Your task to perform on an android device: add a contact Image 0: 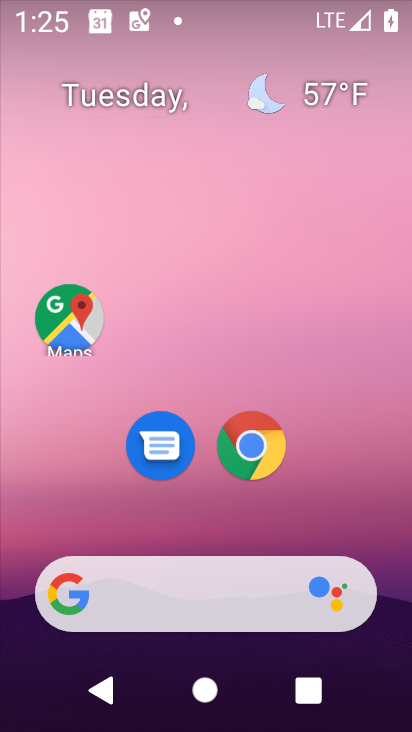
Step 0: drag from (360, 521) to (376, 221)
Your task to perform on an android device: add a contact Image 1: 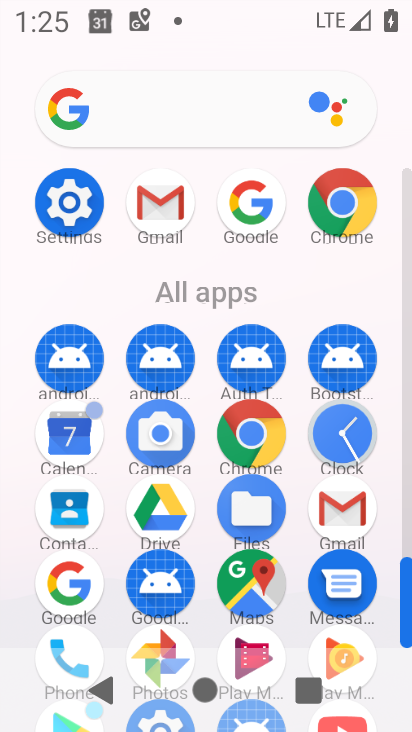
Step 1: click (74, 515)
Your task to perform on an android device: add a contact Image 2: 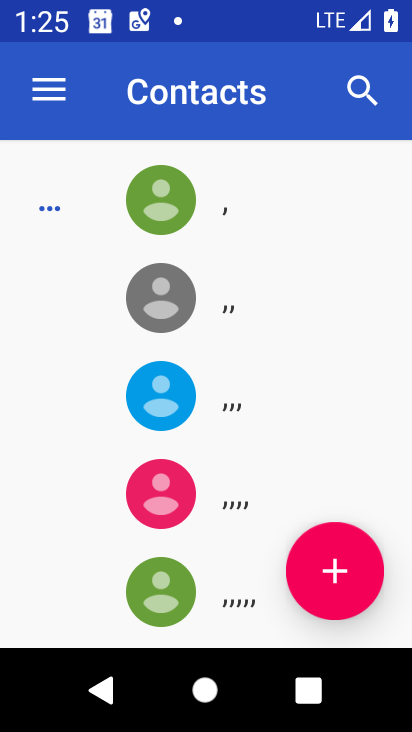
Step 2: click (328, 564)
Your task to perform on an android device: add a contact Image 3: 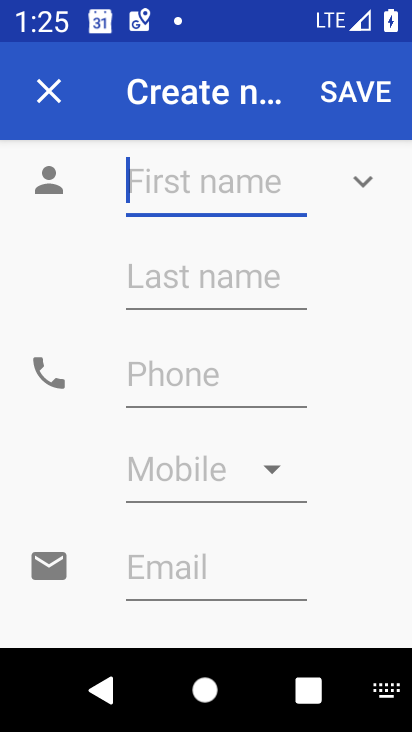
Step 3: click (222, 205)
Your task to perform on an android device: add a contact Image 4: 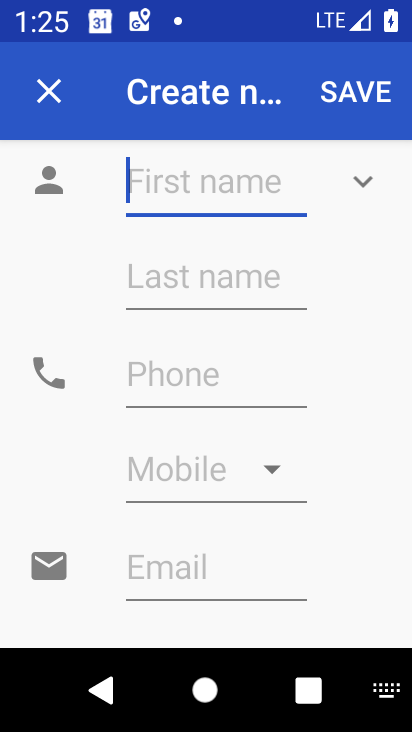
Step 4: type "ggggg"
Your task to perform on an android device: add a contact Image 5: 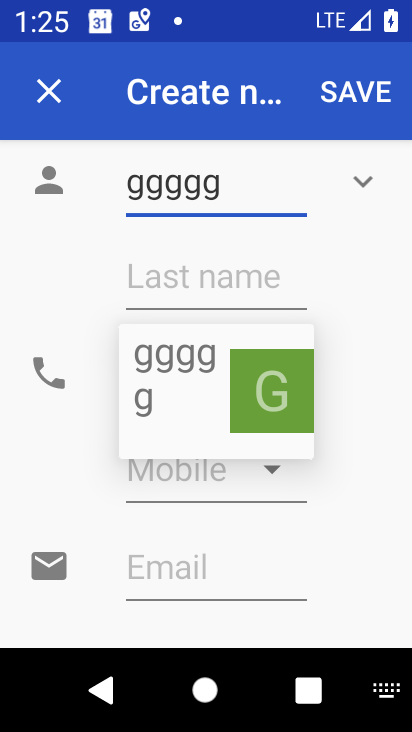
Step 5: click (406, 343)
Your task to perform on an android device: add a contact Image 6: 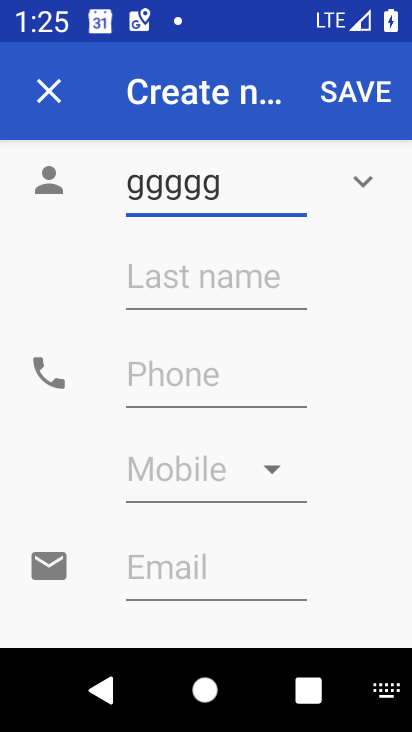
Step 6: click (248, 385)
Your task to perform on an android device: add a contact Image 7: 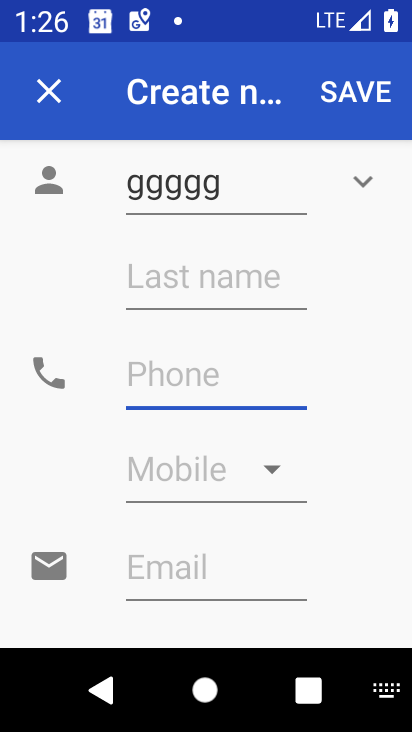
Step 7: type "123456789"
Your task to perform on an android device: add a contact Image 8: 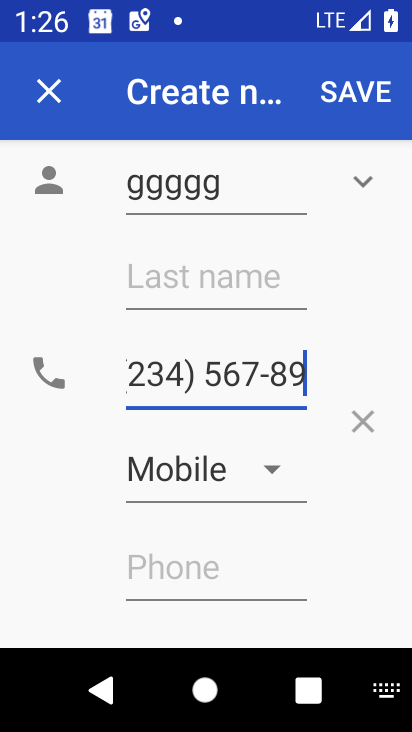
Step 8: click (359, 105)
Your task to perform on an android device: add a contact Image 9: 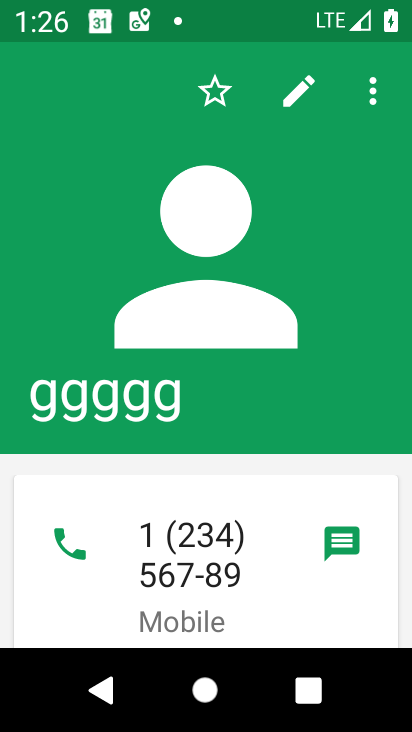
Step 9: task complete